Your task to perform on an android device: Go to CNN.com Image 0: 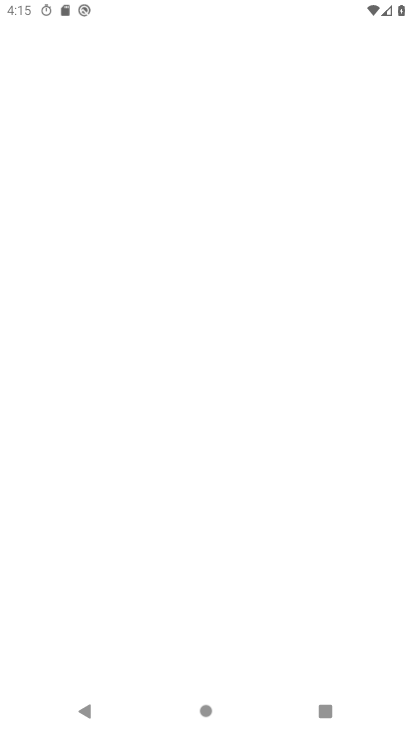
Step 0: click (75, 378)
Your task to perform on an android device: Go to CNN.com Image 1: 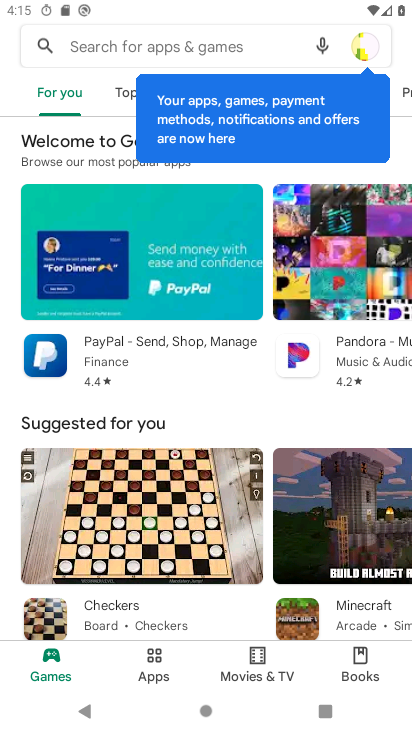
Step 1: press home button
Your task to perform on an android device: Go to CNN.com Image 2: 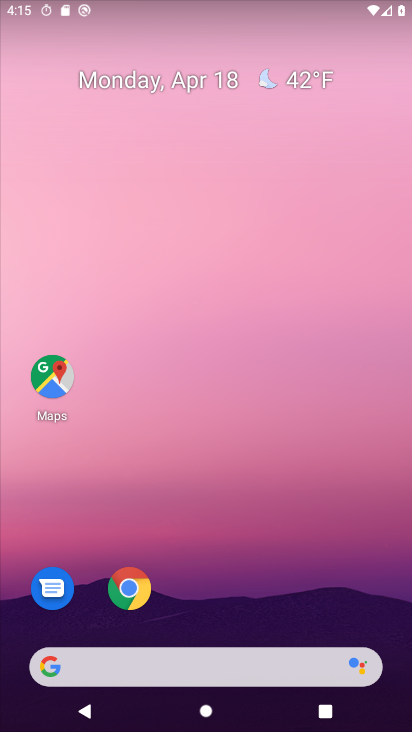
Step 2: click (141, 599)
Your task to perform on an android device: Go to CNN.com Image 3: 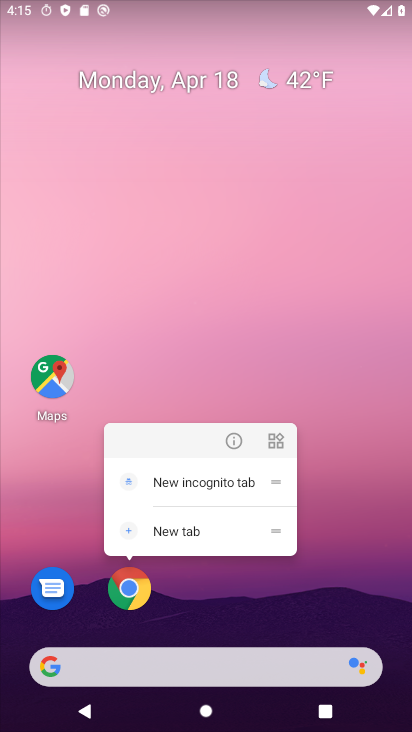
Step 3: click (168, 543)
Your task to perform on an android device: Go to CNN.com Image 4: 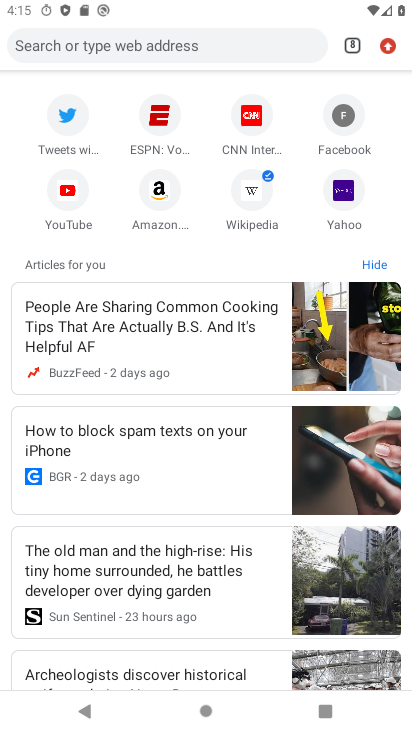
Step 4: click (76, 33)
Your task to perform on an android device: Go to CNN.com Image 5: 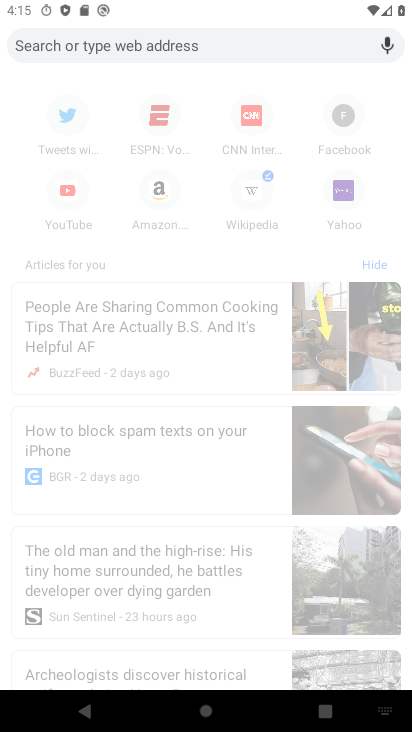
Step 5: type "cnn.com"
Your task to perform on an android device: Go to CNN.com Image 6: 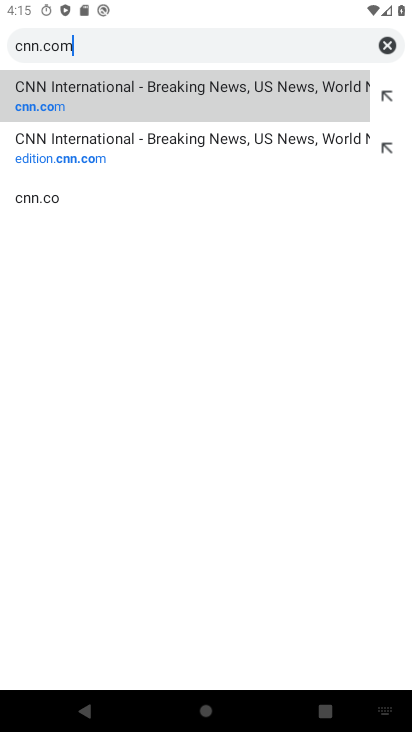
Step 6: type ""
Your task to perform on an android device: Go to CNN.com Image 7: 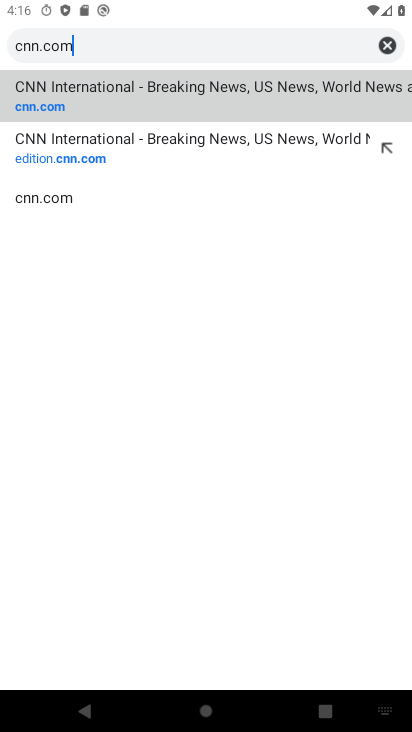
Step 7: click (311, 101)
Your task to perform on an android device: Go to CNN.com Image 8: 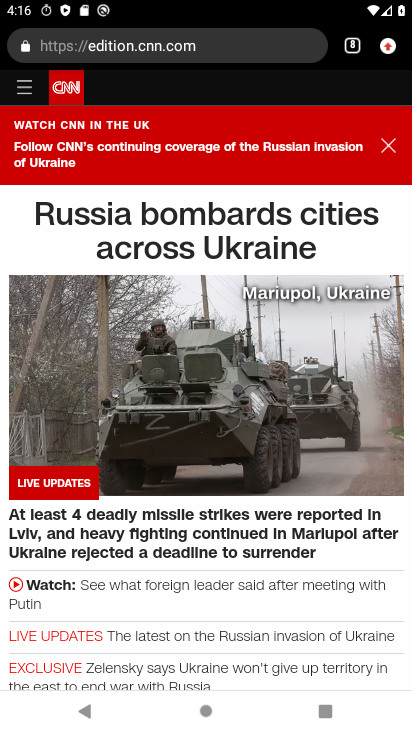
Step 8: task complete